Your task to perform on an android device: change notifications settings Image 0: 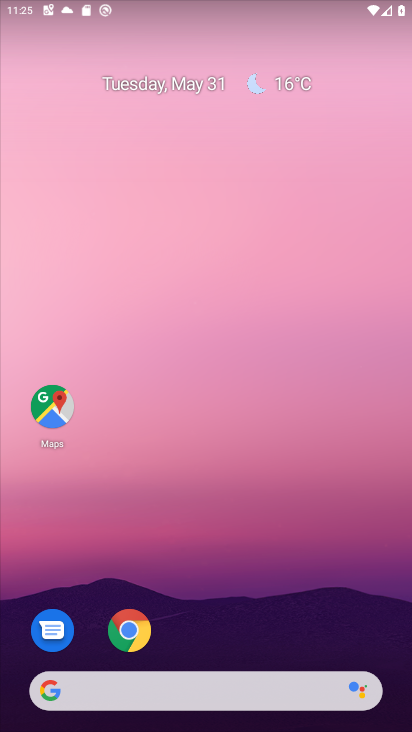
Step 0: drag from (291, 474) to (280, 127)
Your task to perform on an android device: change notifications settings Image 1: 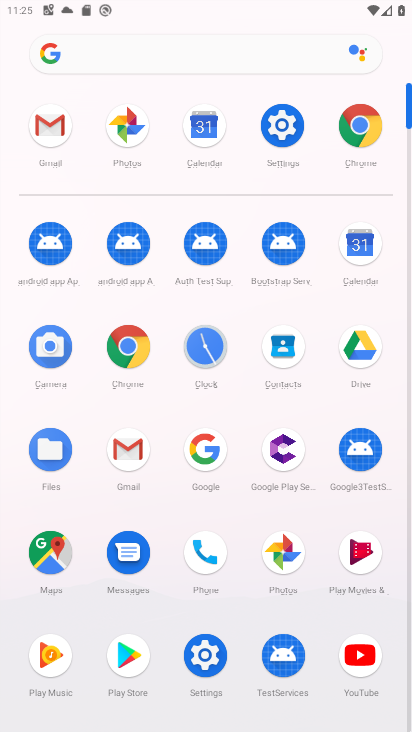
Step 1: click (288, 117)
Your task to perform on an android device: change notifications settings Image 2: 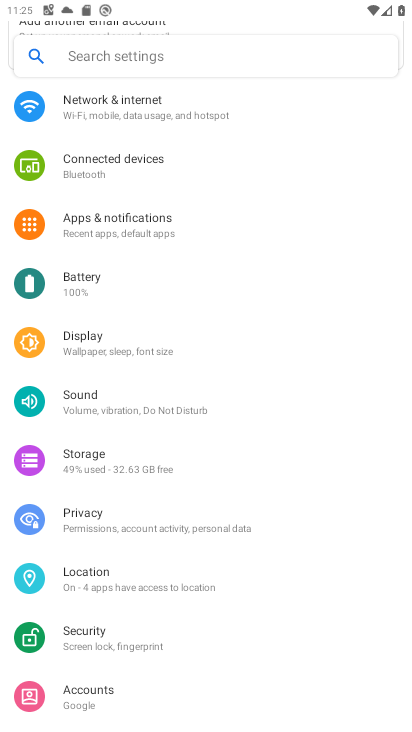
Step 2: click (157, 214)
Your task to perform on an android device: change notifications settings Image 3: 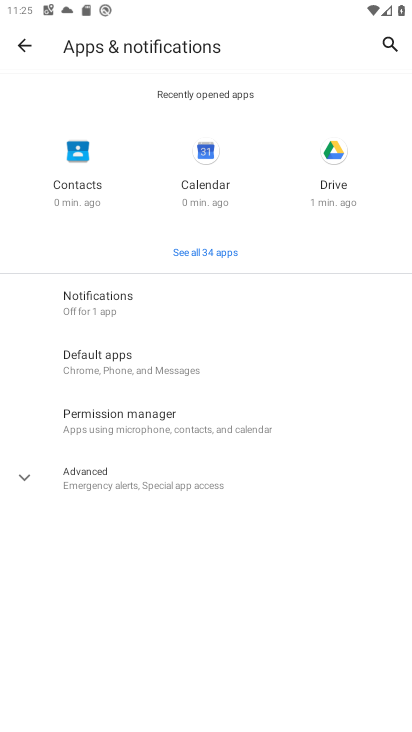
Step 3: click (110, 309)
Your task to perform on an android device: change notifications settings Image 4: 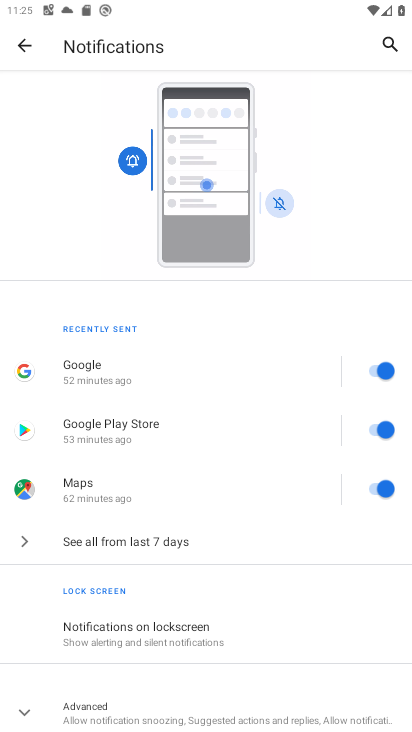
Step 4: task complete